Your task to perform on an android device: Open Amazon Image 0: 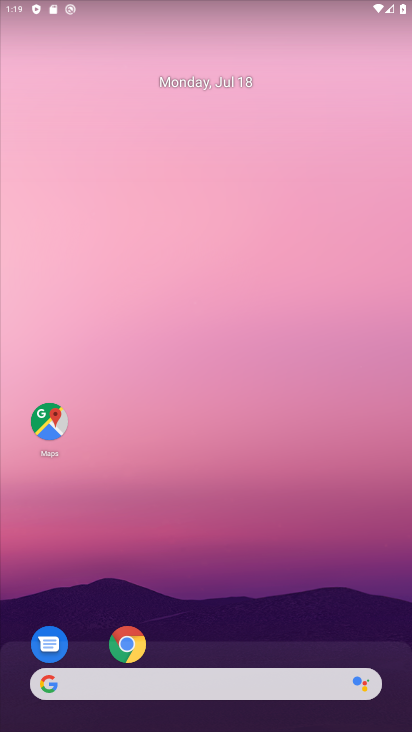
Step 0: click (130, 635)
Your task to perform on an android device: Open Amazon Image 1: 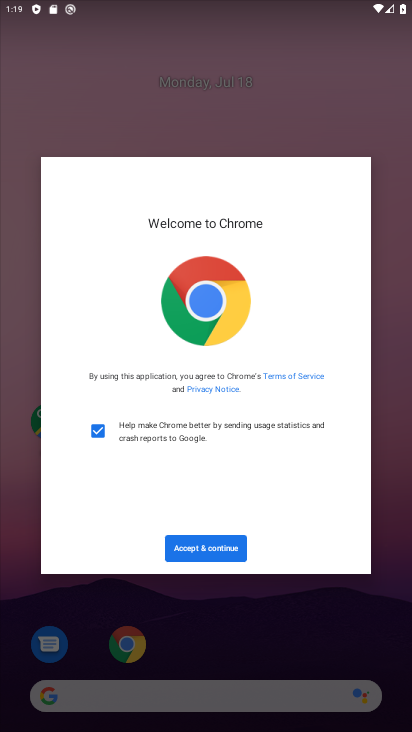
Step 1: click (182, 545)
Your task to perform on an android device: Open Amazon Image 2: 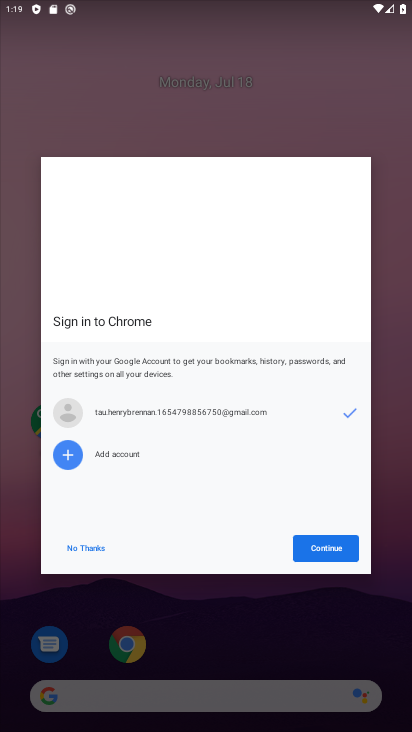
Step 2: click (341, 547)
Your task to perform on an android device: Open Amazon Image 3: 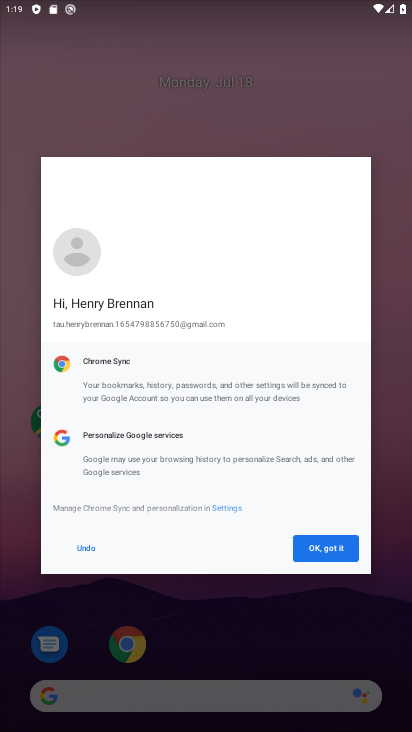
Step 3: click (333, 547)
Your task to perform on an android device: Open Amazon Image 4: 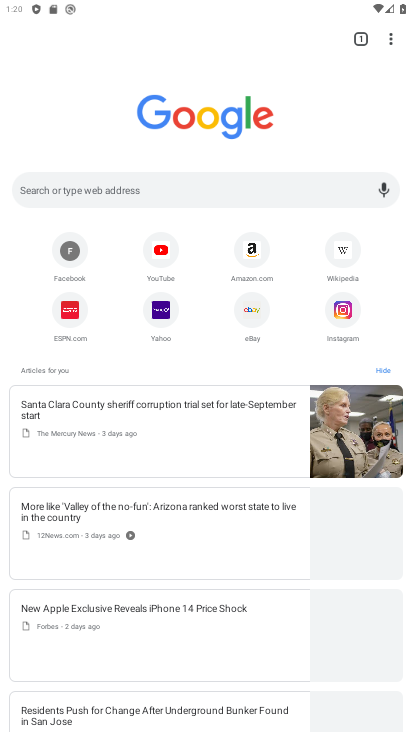
Step 4: click (244, 251)
Your task to perform on an android device: Open Amazon Image 5: 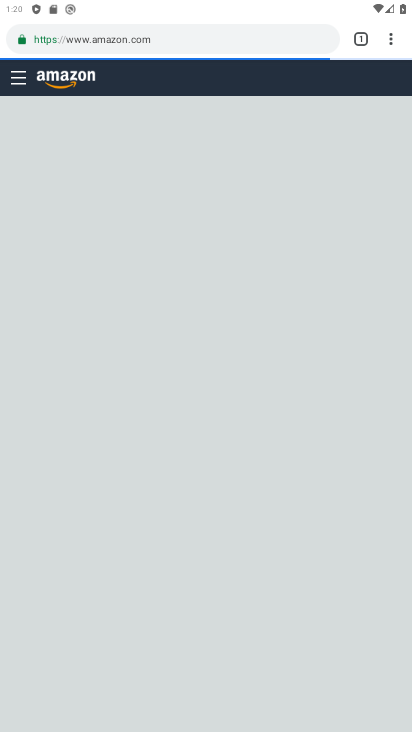
Step 5: task complete